Your task to perform on an android device: add a contact in the contacts app Image 0: 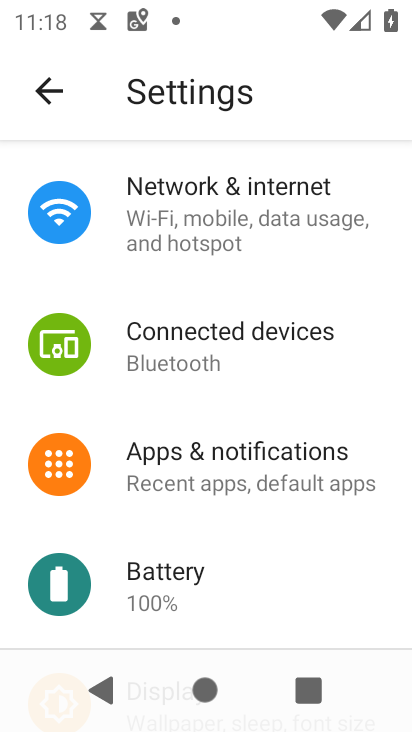
Step 0: press home button
Your task to perform on an android device: add a contact in the contacts app Image 1: 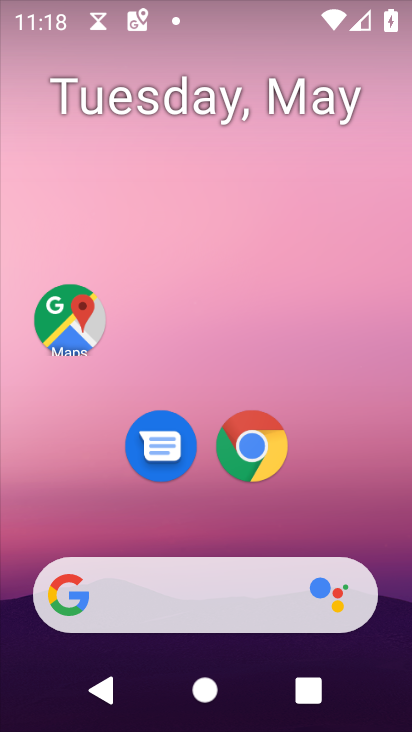
Step 1: drag from (337, 500) to (239, 10)
Your task to perform on an android device: add a contact in the contacts app Image 2: 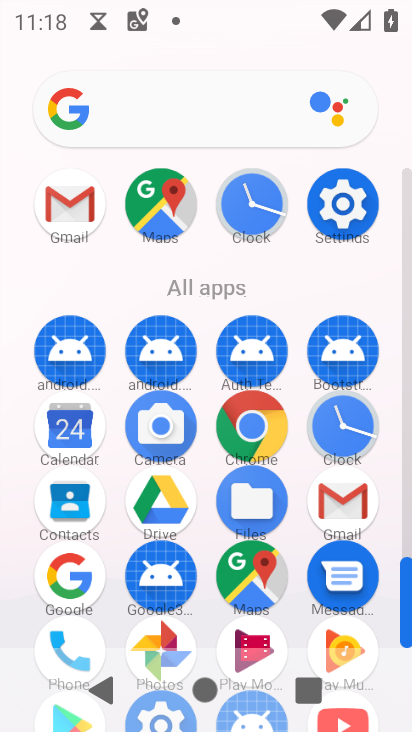
Step 2: click (69, 502)
Your task to perform on an android device: add a contact in the contacts app Image 3: 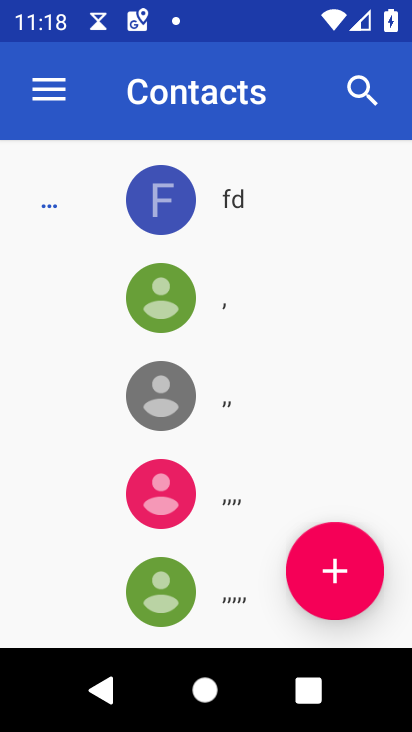
Step 3: click (333, 569)
Your task to perform on an android device: add a contact in the contacts app Image 4: 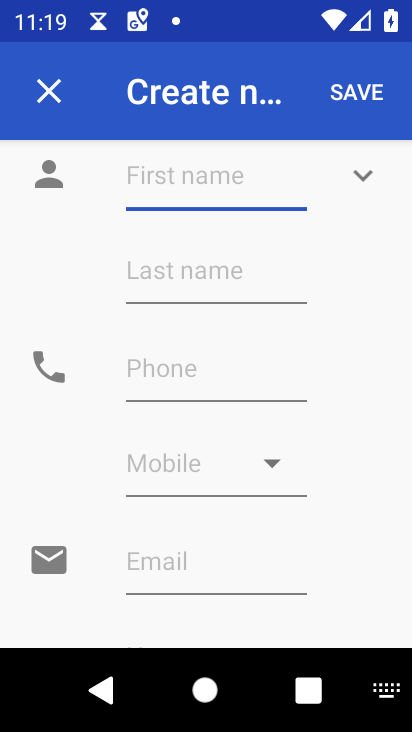
Step 4: click (216, 191)
Your task to perform on an android device: add a contact in the contacts app Image 5: 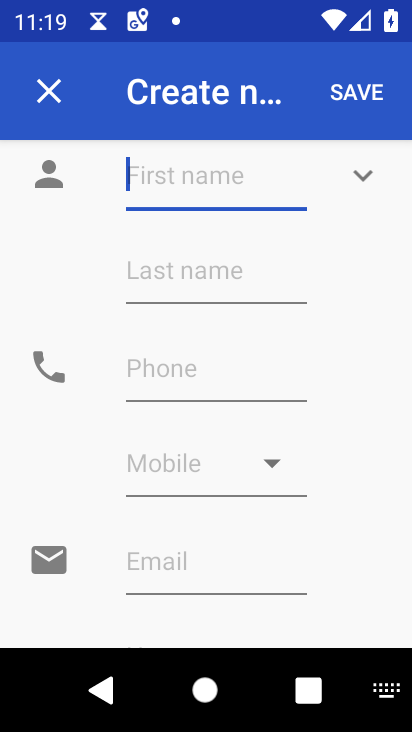
Step 5: type "Judwaniya"
Your task to perform on an android device: add a contact in the contacts app Image 6: 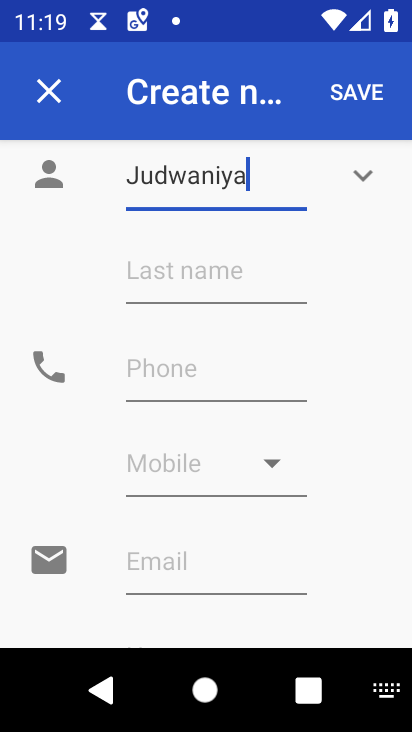
Step 6: click (252, 281)
Your task to perform on an android device: add a contact in the contacts app Image 7: 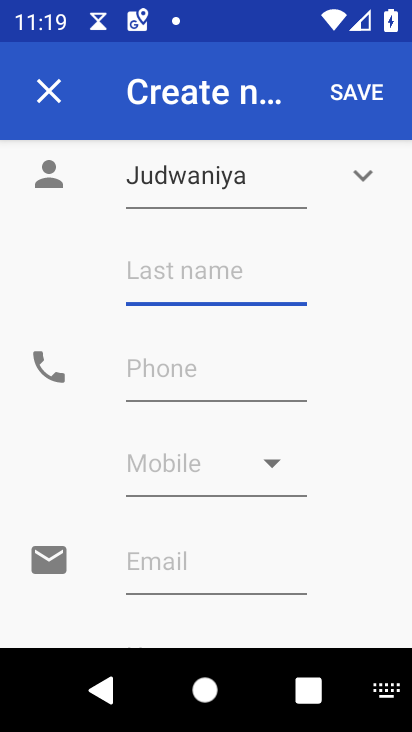
Step 7: type "Sakhopaar"
Your task to perform on an android device: add a contact in the contacts app Image 8: 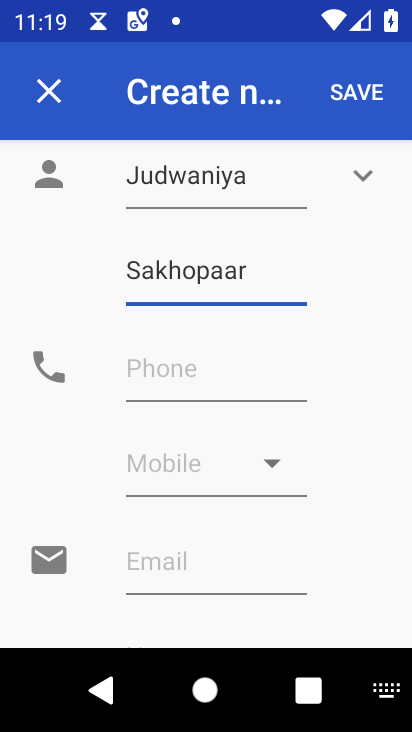
Step 8: click (177, 373)
Your task to perform on an android device: add a contact in the contacts app Image 9: 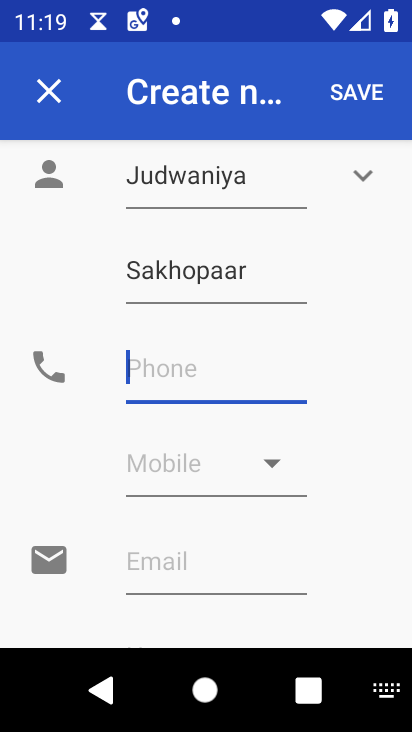
Step 9: type "09988775533"
Your task to perform on an android device: add a contact in the contacts app Image 10: 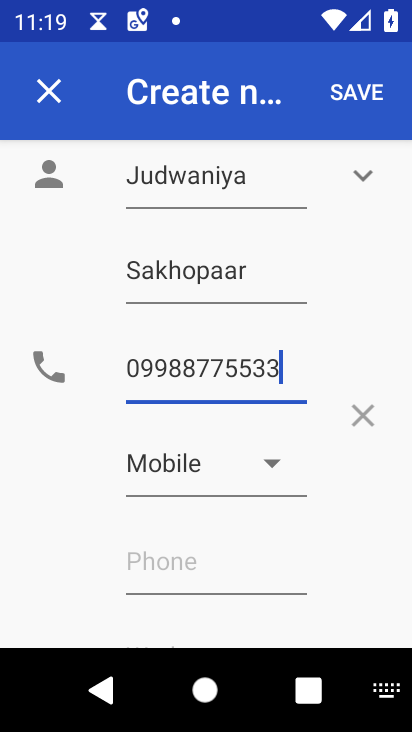
Step 10: click (356, 98)
Your task to perform on an android device: add a contact in the contacts app Image 11: 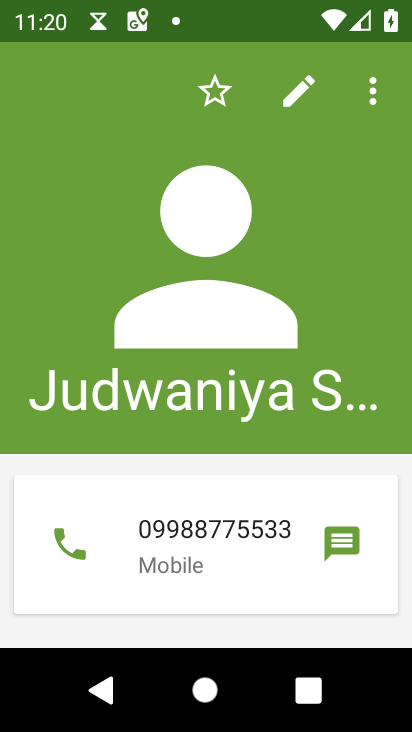
Step 11: task complete